Your task to perform on an android device: Open calendar and show me the first week of next month Image 0: 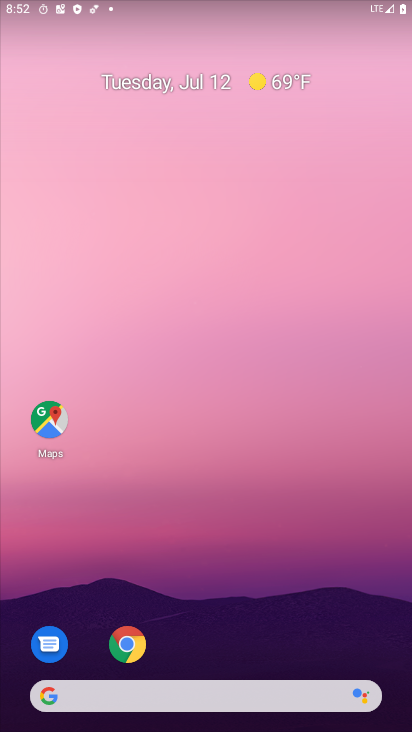
Step 0: drag from (237, 656) to (272, 92)
Your task to perform on an android device: Open calendar and show me the first week of next month Image 1: 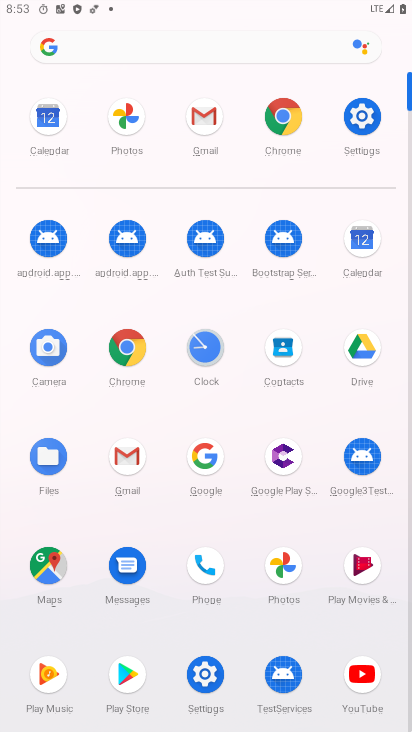
Step 1: click (358, 235)
Your task to perform on an android device: Open calendar and show me the first week of next month Image 2: 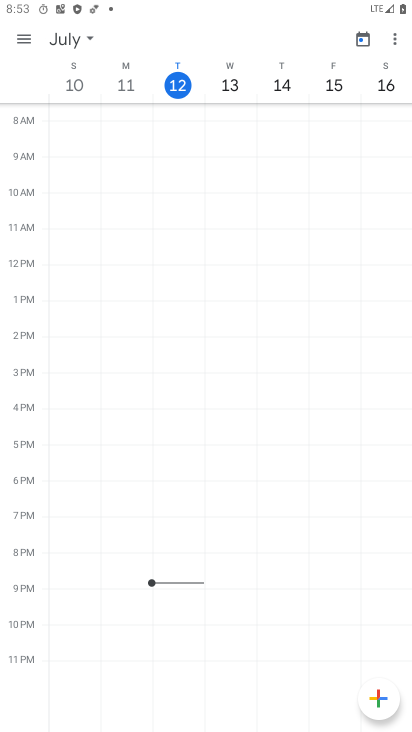
Step 2: click (28, 36)
Your task to perform on an android device: Open calendar and show me the first week of next month Image 3: 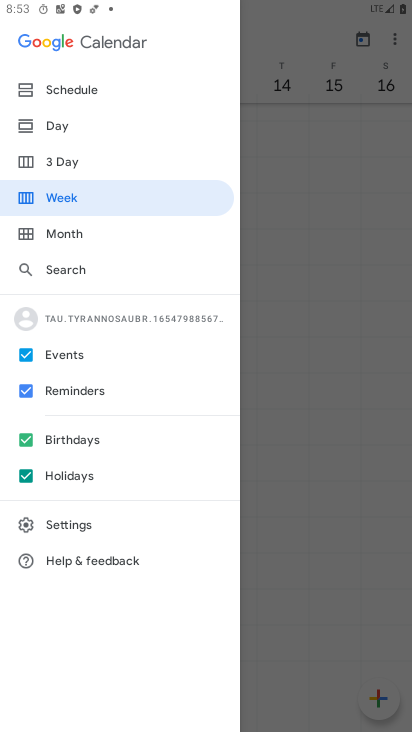
Step 3: click (59, 199)
Your task to perform on an android device: Open calendar and show me the first week of next month Image 4: 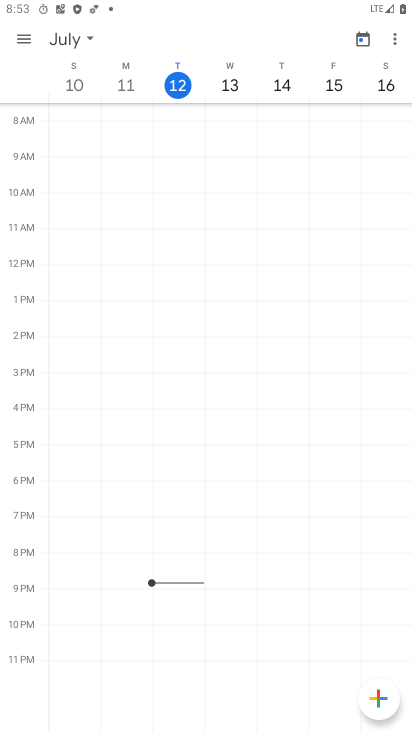
Step 4: task complete